Your task to perform on an android device: check data usage Image 0: 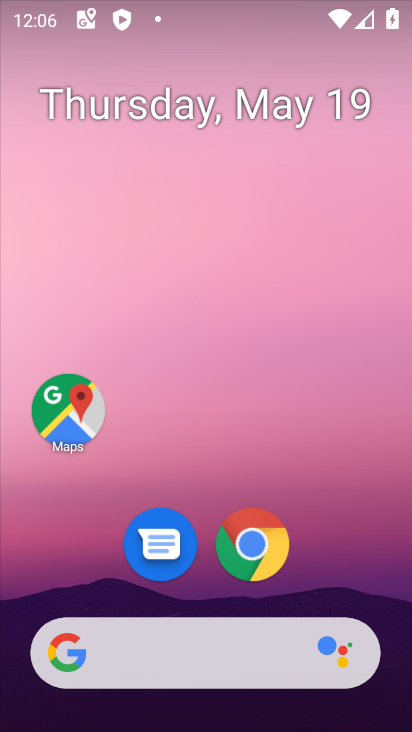
Step 0: drag from (208, 731) to (218, 76)
Your task to perform on an android device: check data usage Image 1: 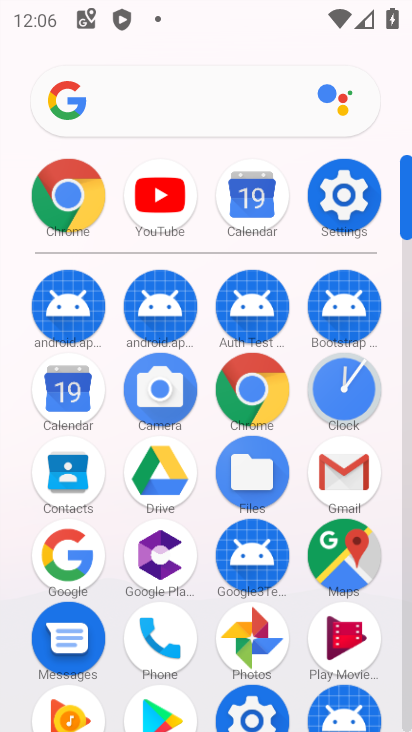
Step 1: click (334, 208)
Your task to perform on an android device: check data usage Image 2: 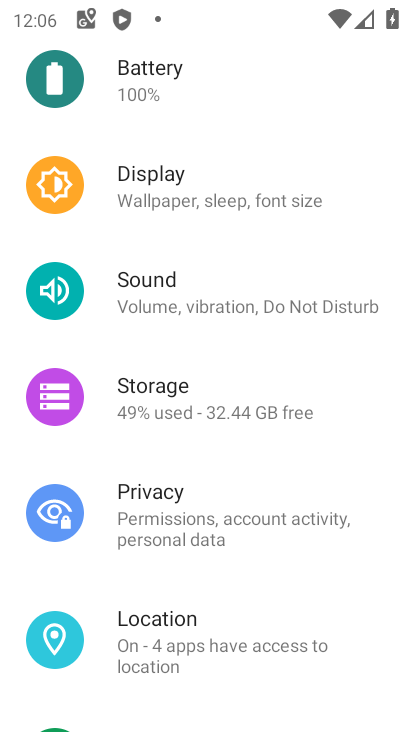
Step 2: drag from (326, 114) to (345, 559)
Your task to perform on an android device: check data usage Image 3: 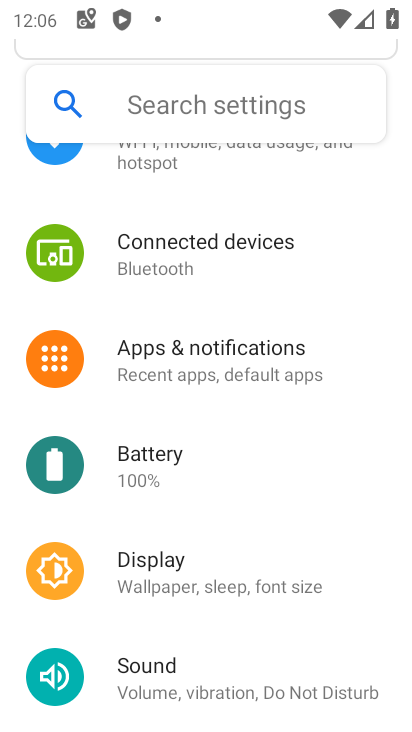
Step 3: drag from (327, 227) to (311, 582)
Your task to perform on an android device: check data usage Image 4: 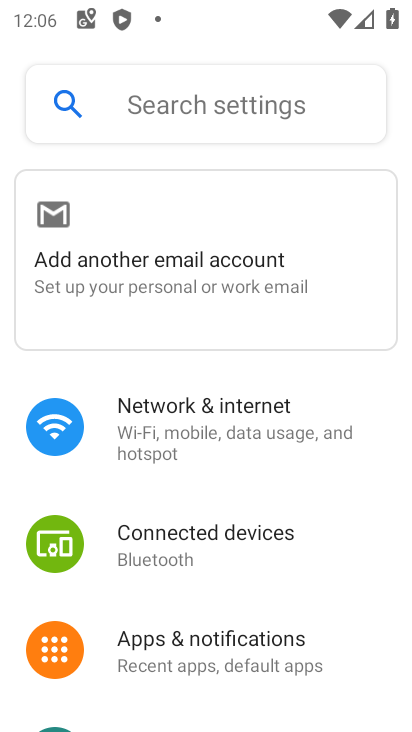
Step 4: click (227, 409)
Your task to perform on an android device: check data usage Image 5: 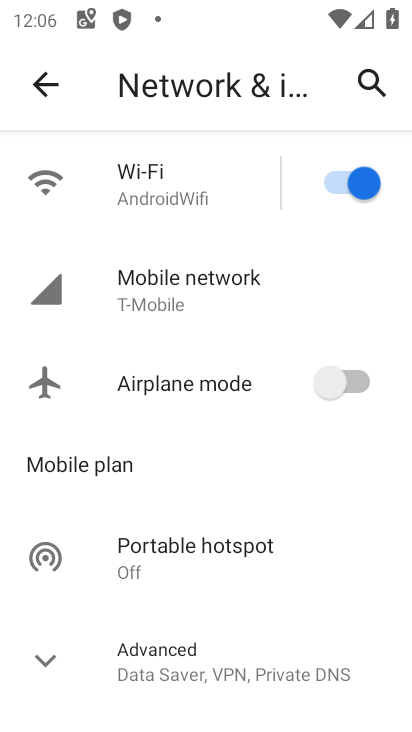
Step 5: drag from (327, 566) to (303, 332)
Your task to perform on an android device: check data usage Image 6: 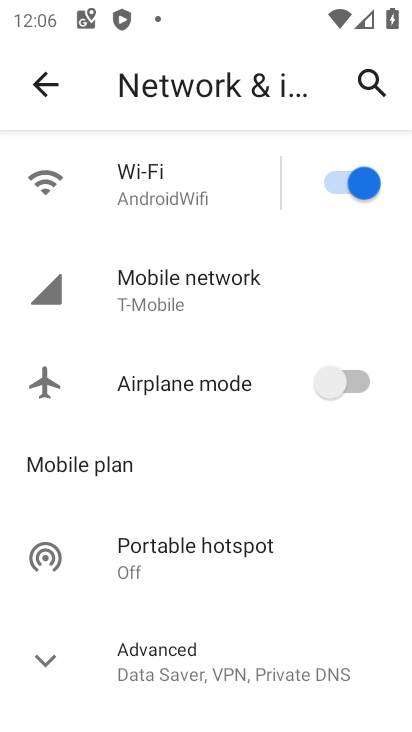
Step 6: drag from (271, 610) to (223, 231)
Your task to perform on an android device: check data usage Image 7: 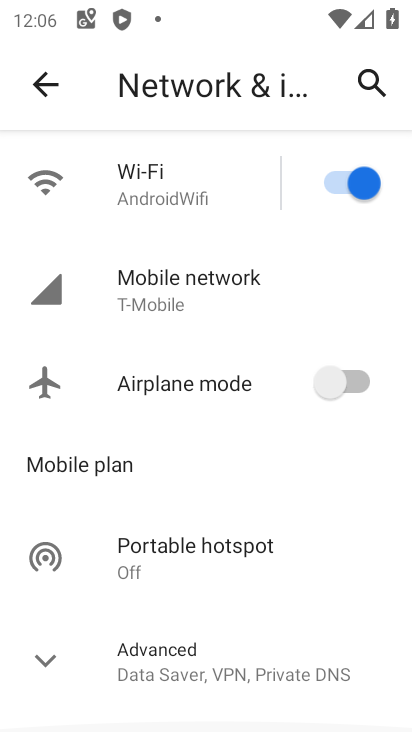
Step 7: click (173, 672)
Your task to perform on an android device: check data usage Image 8: 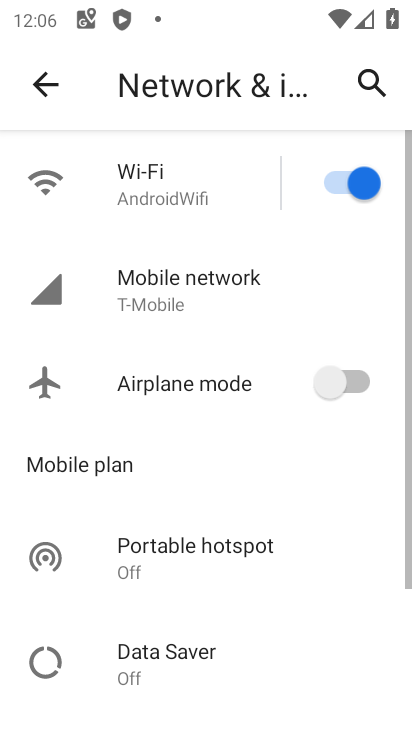
Step 8: drag from (316, 644) to (300, 223)
Your task to perform on an android device: check data usage Image 9: 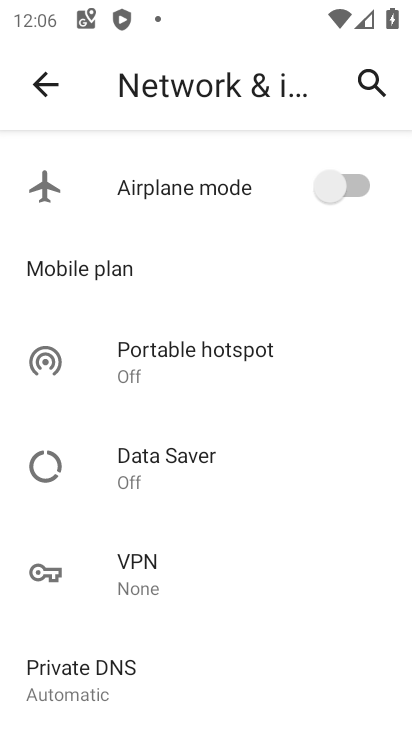
Step 9: drag from (282, 531) to (265, 119)
Your task to perform on an android device: check data usage Image 10: 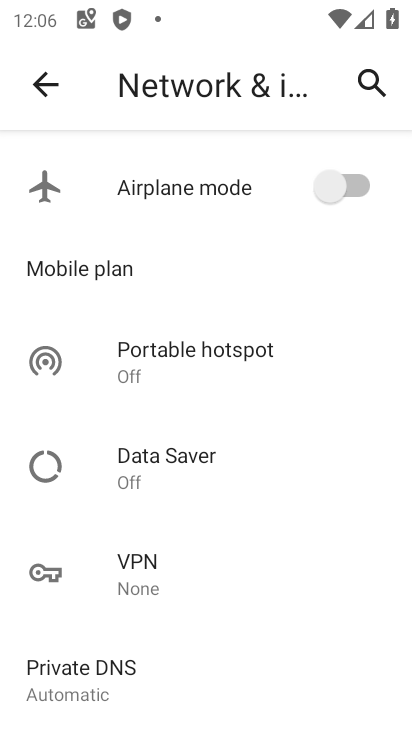
Step 10: drag from (292, 392) to (308, 673)
Your task to perform on an android device: check data usage Image 11: 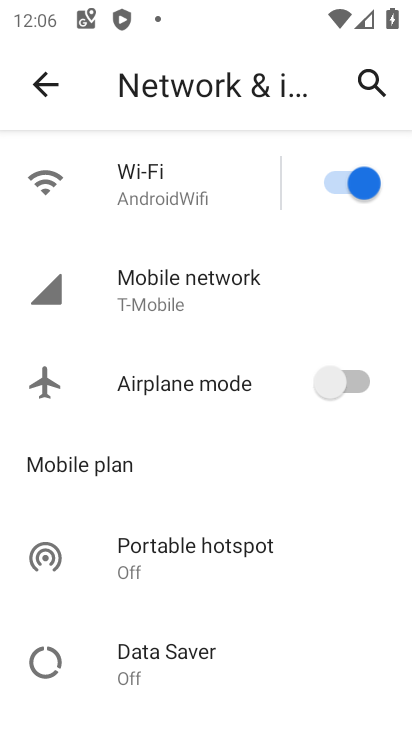
Step 11: drag from (281, 257) to (272, 485)
Your task to perform on an android device: check data usage Image 12: 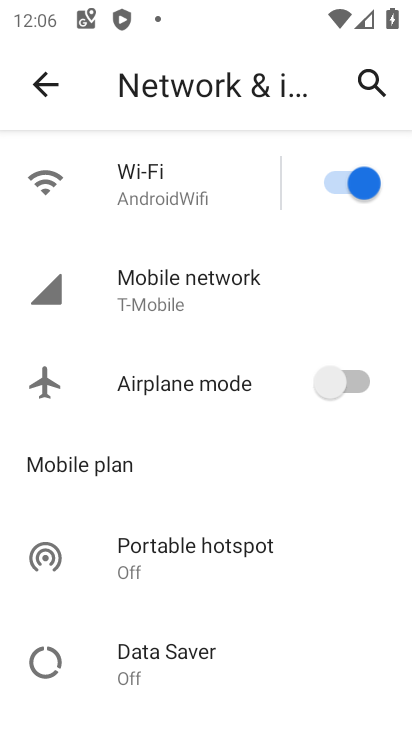
Step 12: drag from (332, 659) to (295, 292)
Your task to perform on an android device: check data usage Image 13: 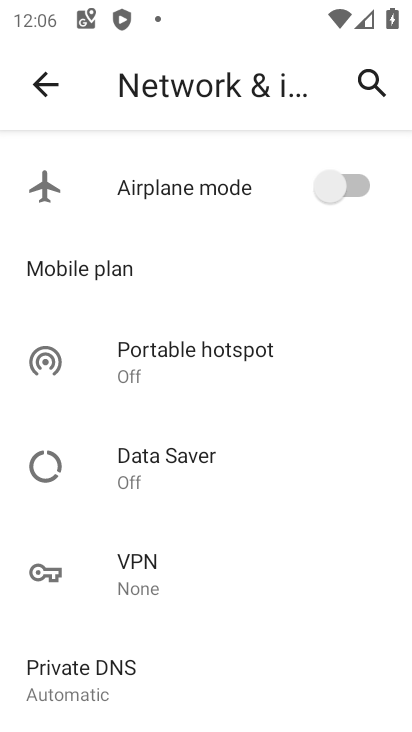
Step 13: click (43, 85)
Your task to perform on an android device: check data usage Image 14: 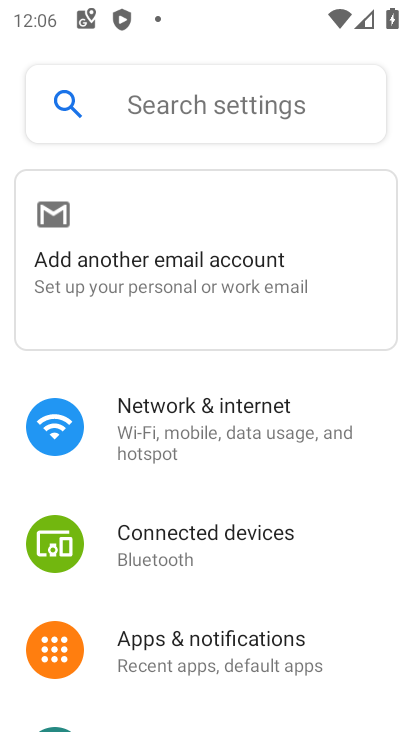
Step 14: click (228, 424)
Your task to perform on an android device: check data usage Image 15: 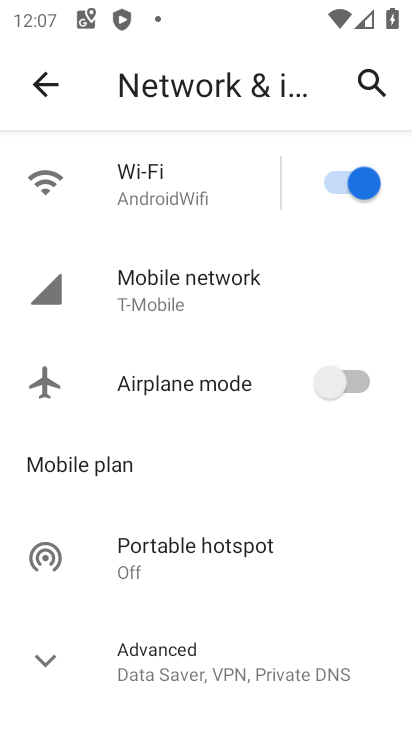
Step 15: click (190, 294)
Your task to perform on an android device: check data usage Image 16: 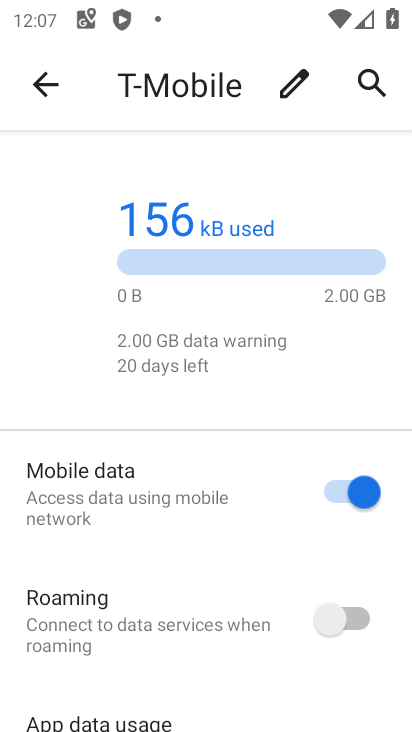
Step 16: task complete